Your task to perform on an android device: Open Amazon Image 0: 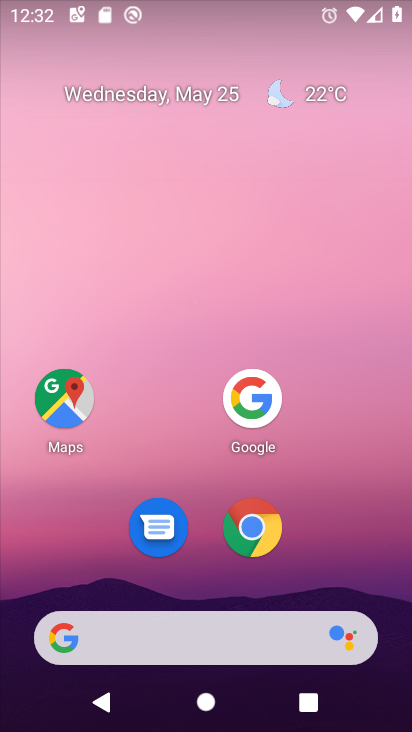
Step 0: press home button
Your task to perform on an android device: Open Amazon Image 1: 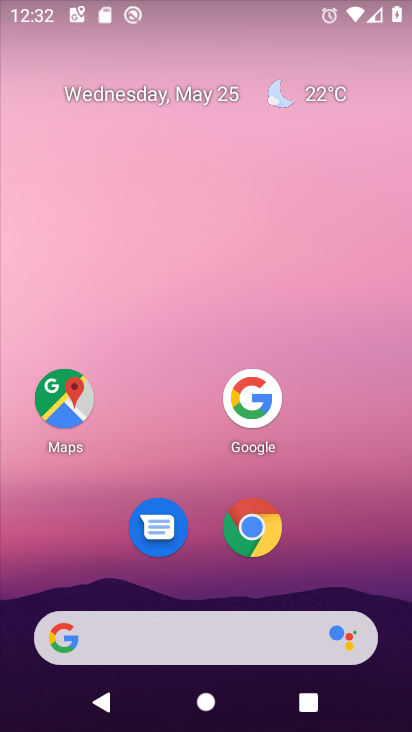
Step 1: click (252, 535)
Your task to perform on an android device: Open Amazon Image 2: 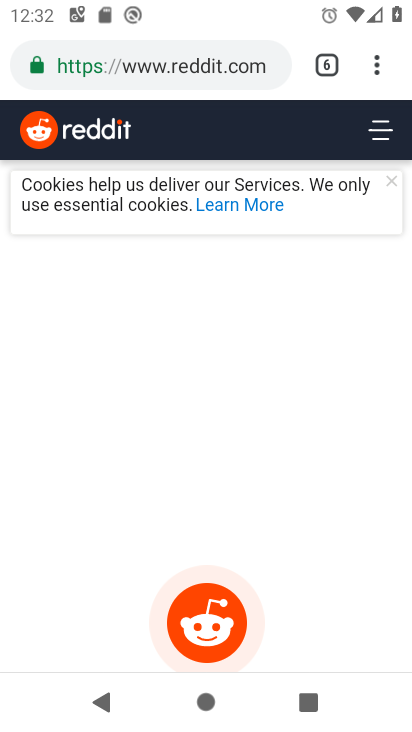
Step 2: drag from (380, 66) to (295, 122)
Your task to perform on an android device: Open Amazon Image 3: 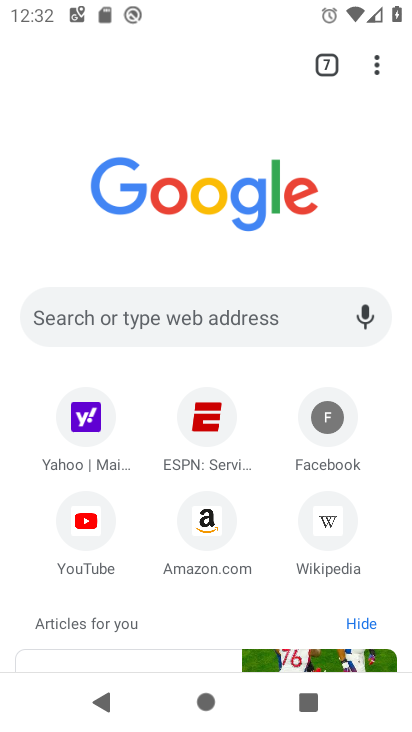
Step 3: click (210, 507)
Your task to perform on an android device: Open Amazon Image 4: 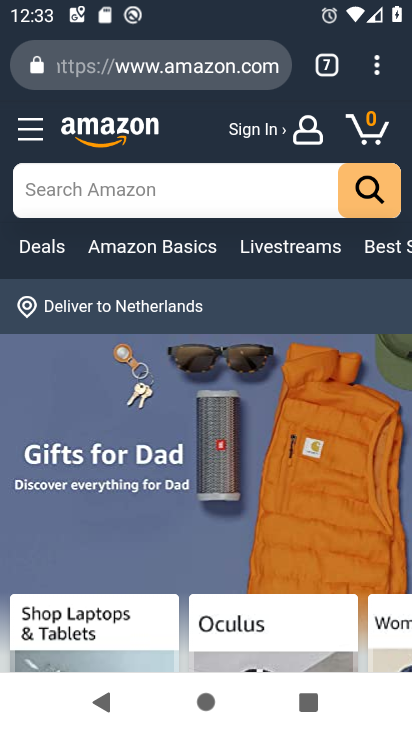
Step 4: task complete